Your task to perform on an android device: turn smart compose on in the gmail app Image 0: 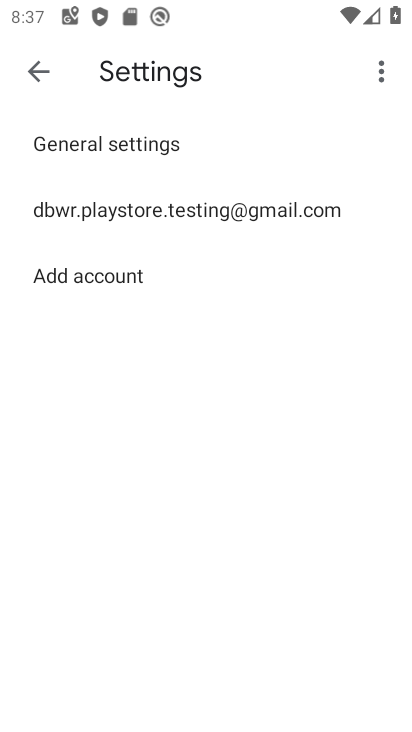
Step 0: press home button
Your task to perform on an android device: turn smart compose on in the gmail app Image 1: 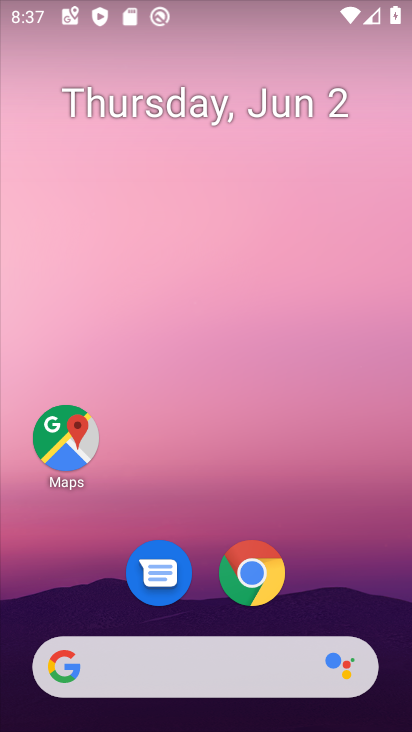
Step 1: drag from (368, 592) to (309, 2)
Your task to perform on an android device: turn smart compose on in the gmail app Image 2: 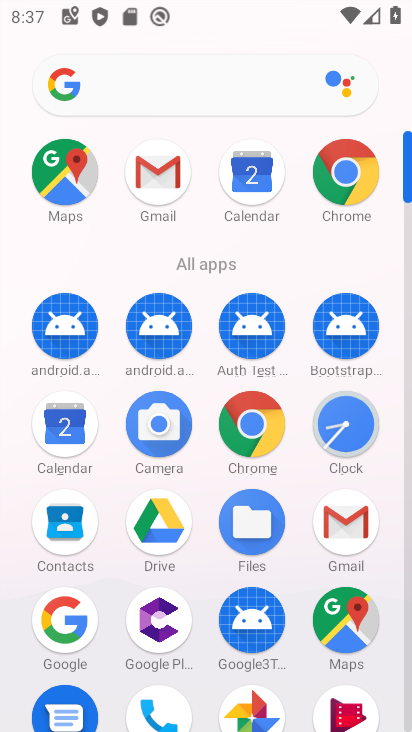
Step 2: click (156, 182)
Your task to perform on an android device: turn smart compose on in the gmail app Image 3: 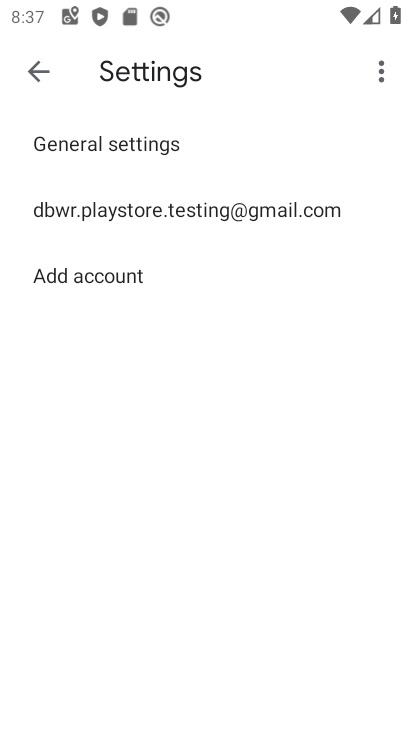
Step 3: click (163, 224)
Your task to perform on an android device: turn smart compose on in the gmail app Image 4: 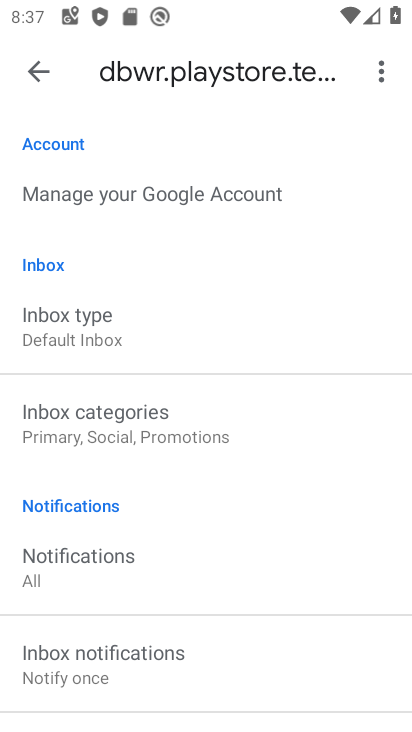
Step 4: task complete